Your task to perform on an android device: change notifications settings Image 0: 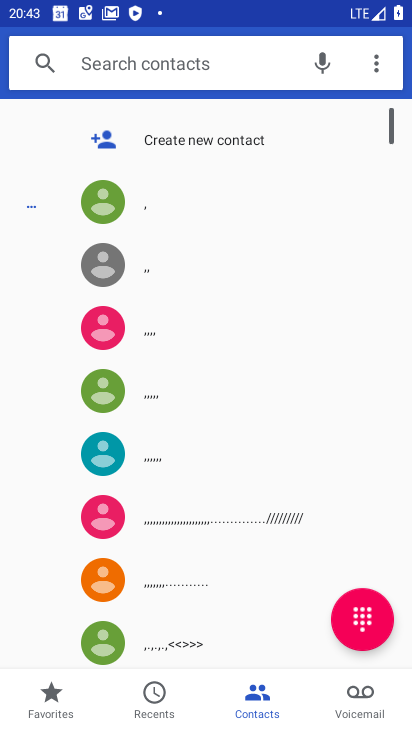
Step 0: press home button
Your task to perform on an android device: change notifications settings Image 1: 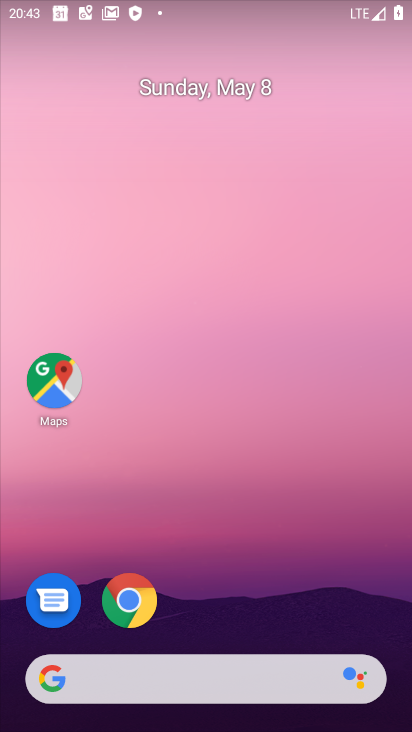
Step 1: drag from (261, 682) to (381, 129)
Your task to perform on an android device: change notifications settings Image 2: 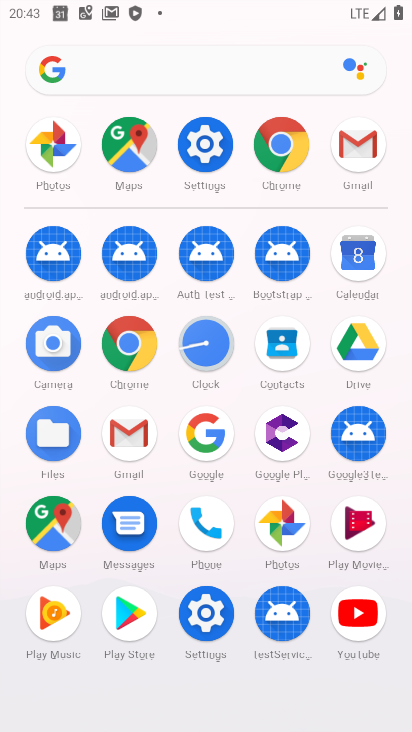
Step 2: click (192, 147)
Your task to perform on an android device: change notifications settings Image 3: 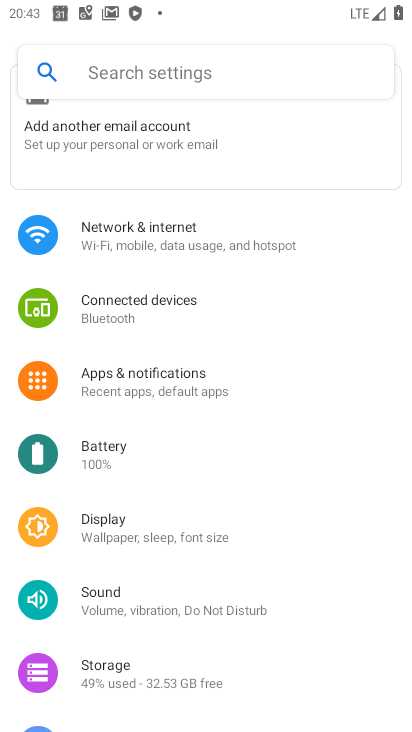
Step 3: click (218, 76)
Your task to perform on an android device: change notifications settings Image 4: 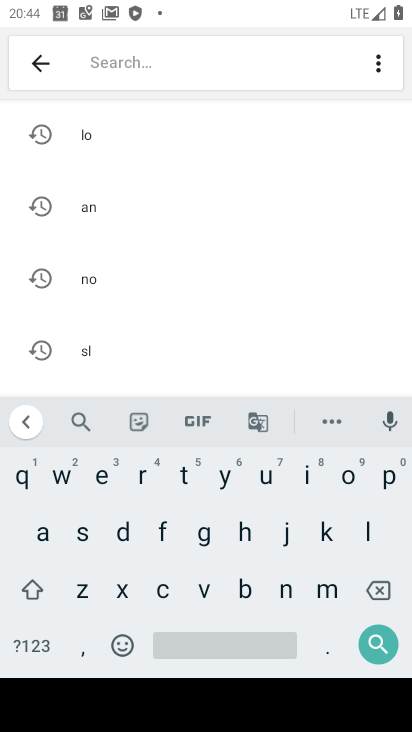
Step 4: click (283, 592)
Your task to perform on an android device: change notifications settings Image 5: 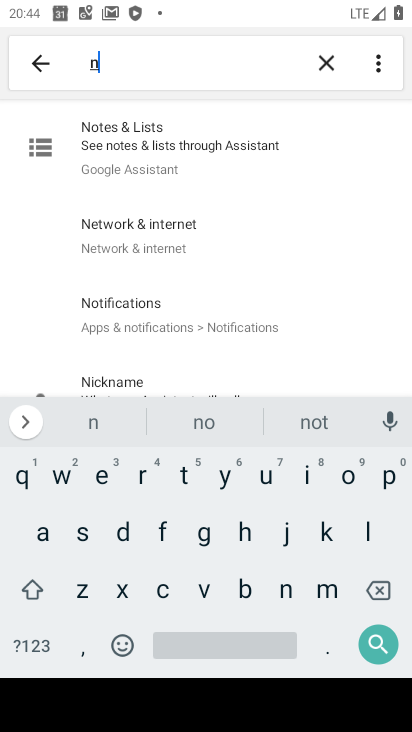
Step 5: click (344, 482)
Your task to perform on an android device: change notifications settings Image 6: 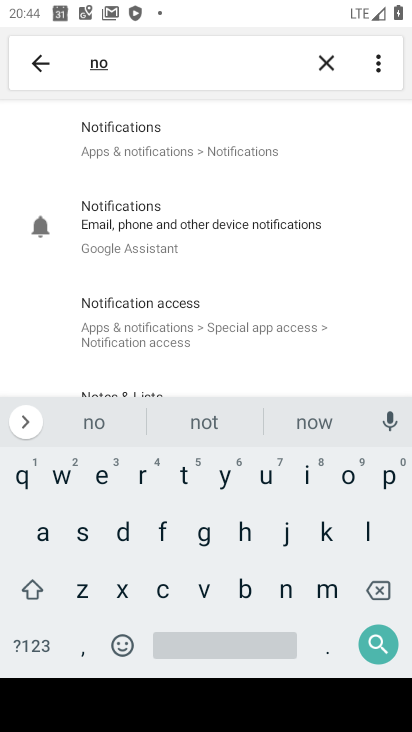
Step 6: click (163, 150)
Your task to perform on an android device: change notifications settings Image 7: 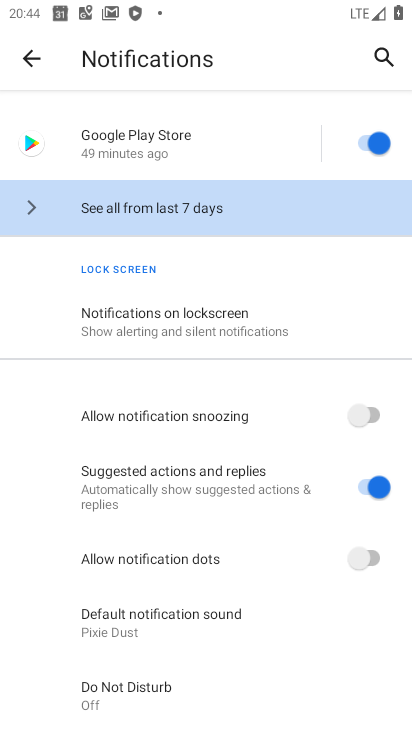
Step 7: click (114, 317)
Your task to perform on an android device: change notifications settings Image 8: 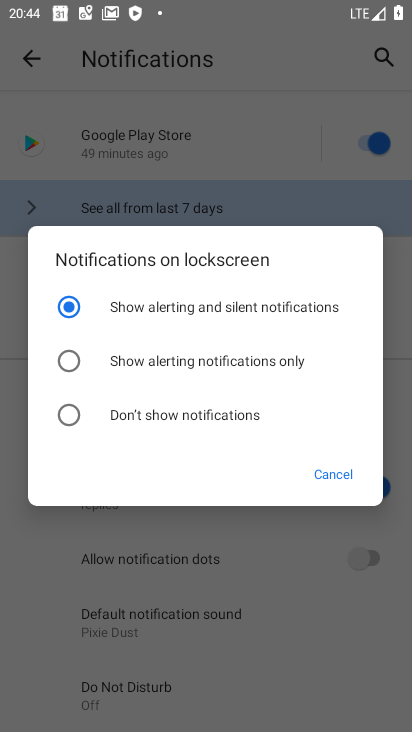
Step 8: click (105, 355)
Your task to perform on an android device: change notifications settings Image 9: 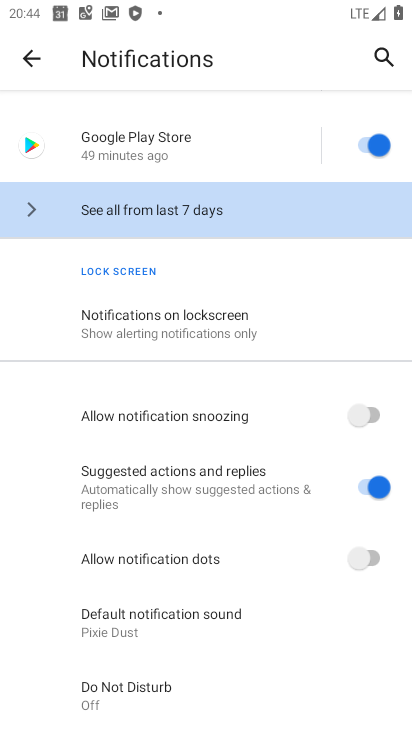
Step 9: task complete